Your task to perform on an android device: Go to Reddit.com Image 0: 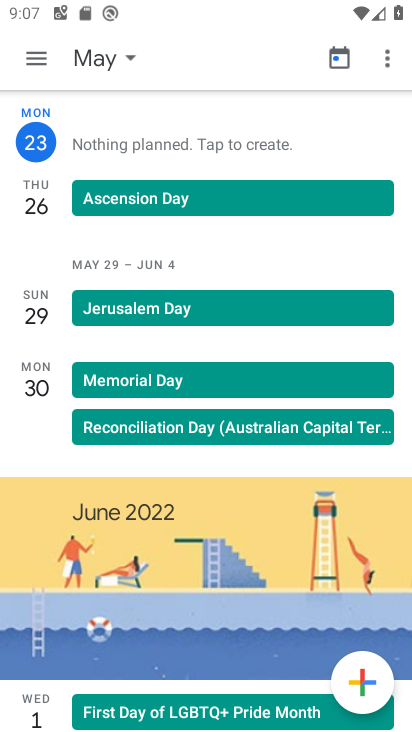
Step 0: press home button
Your task to perform on an android device: Go to Reddit.com Image 1: 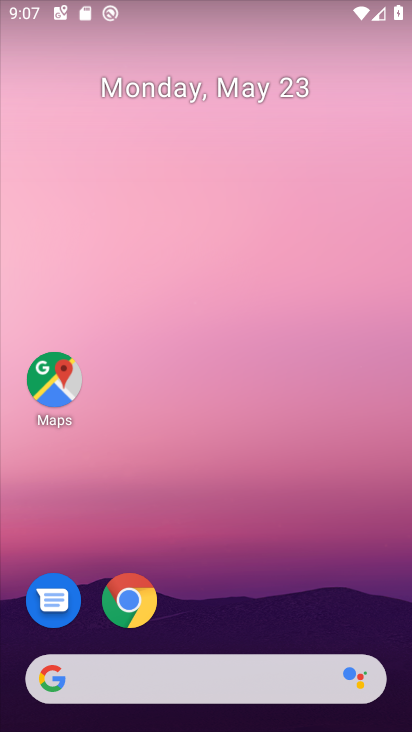
Step 1: click (124, 598)
Your task to perform on an android device: Go to Reddit.com Image 2: 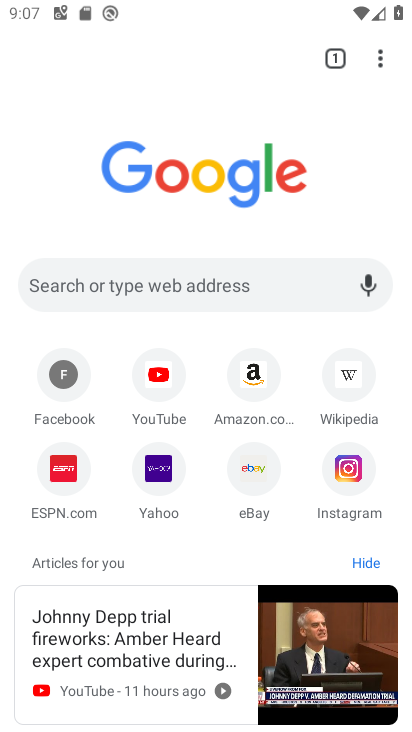
Step 2: click (213, 286)
Your task to perform on an android device: Go to Reddit.com Image 3: 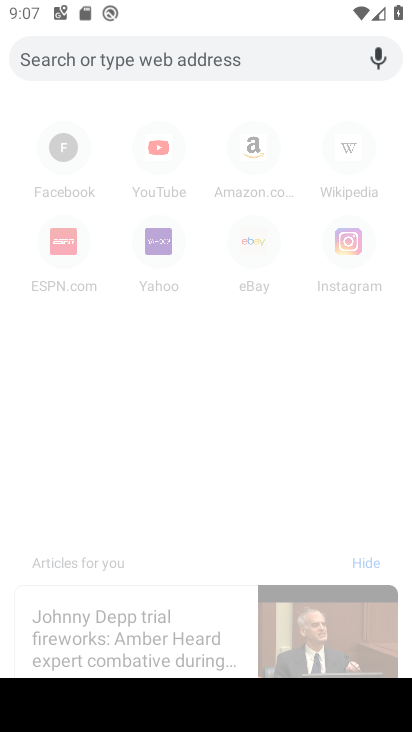
Step 3: type "Reddit.com"
Your task to perform on an android device: Go to Reddit.com Image 4: 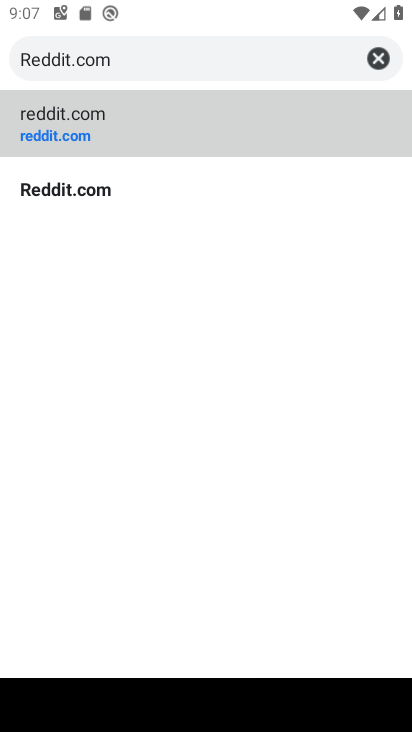
Step 4: click (79, 124)
Your task to perform on an android device: Go to Reddit.com Image 5: 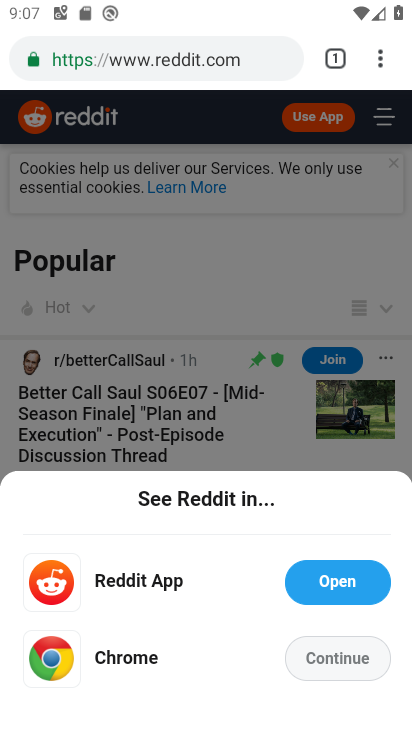
Step 5: task complete